Your task to perform on an android device: turn on notifications settings in the gmail app Image 0: 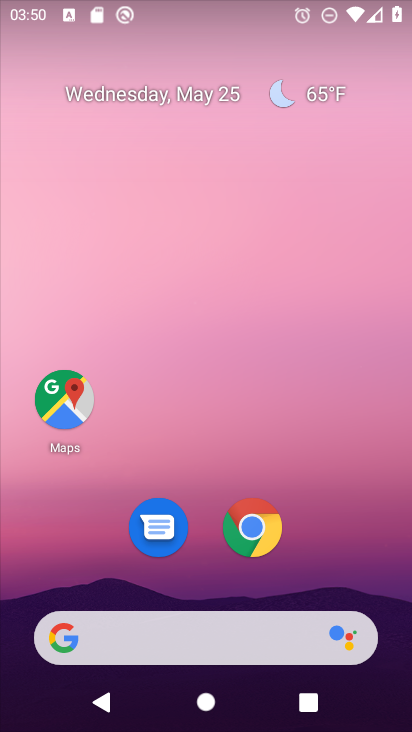
Step 0: drag from (215, 627) to (210, 0)
Your task to perform on an android device: turn on notifications settings in the gmail app Image 1: 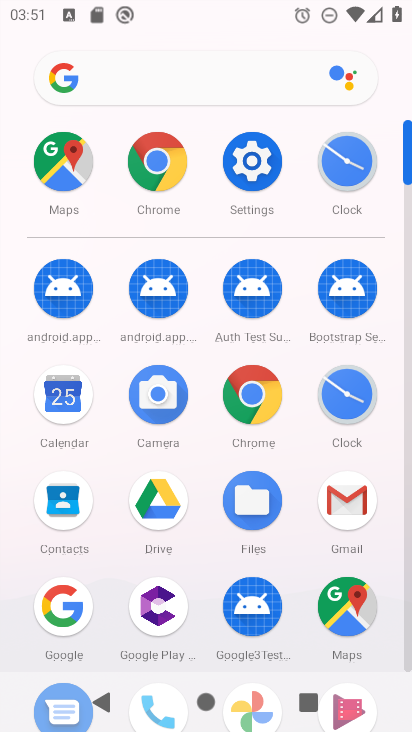
Step 1: click (331, 478)
Your task to perform on an android device: turn on notifications settings in the gmail app Image 2: 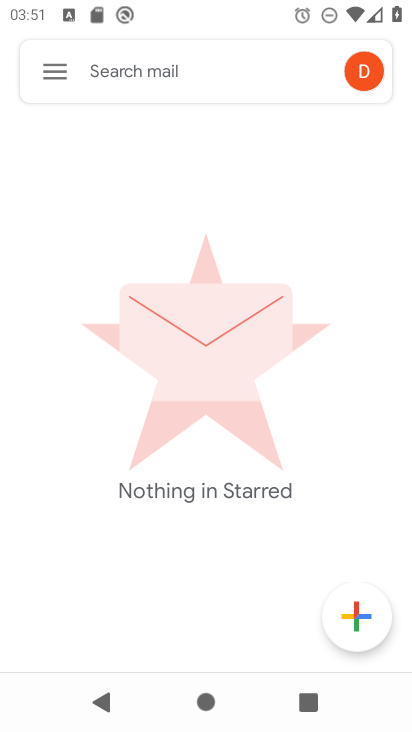
Step 2: click (55, 74)
Your task to perform on an android device: turn on notifications settings in the gmail app Image 3: 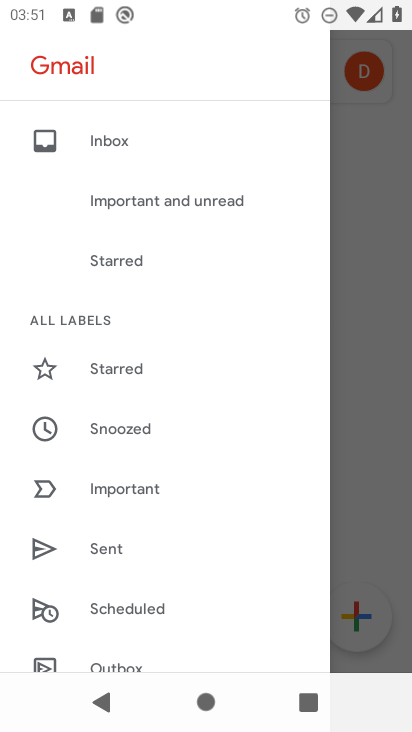
Step 3: drag from (151, 571) to (118, 70)
Your task to perform on an android device: turn on notifications settings in the gmail app Image 4: 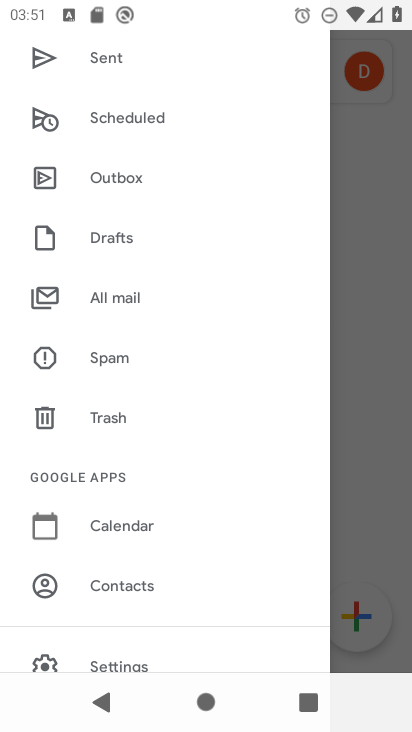
Step 4: drag from (121, 629) to (125, 381)
Your task to perform on an android device: turn on notifications settings in the gmail app Image 5: 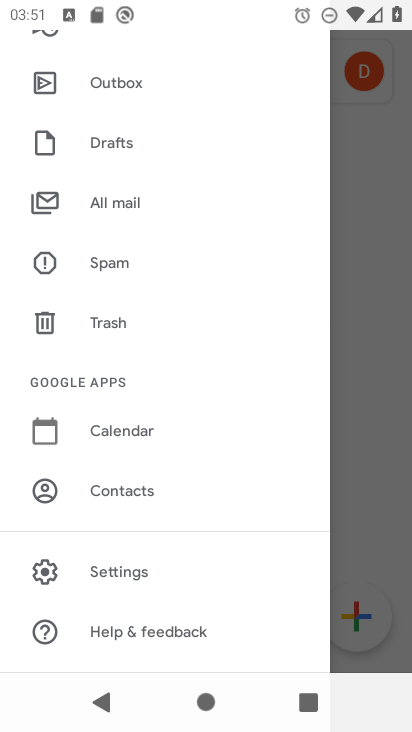
Step 5: click (158, 577)
Your task to perform on an android device: turn on notifications settings in the gmail app Image 6: 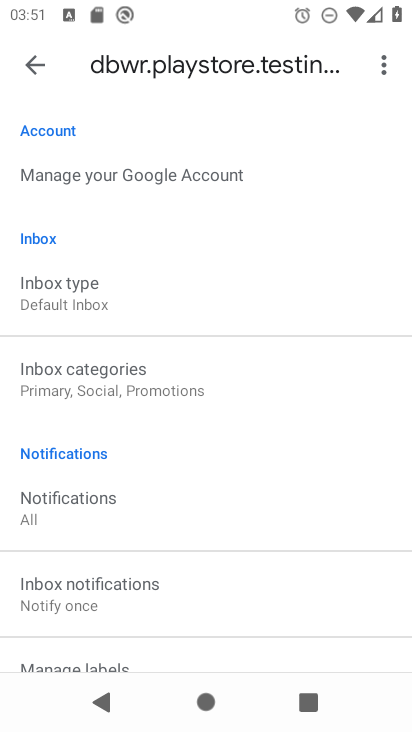
Step 6: drag from (147, 618) to (171, 283)
Your task to perform on an android device: turn on notifications settings in the gmail app Image 7: 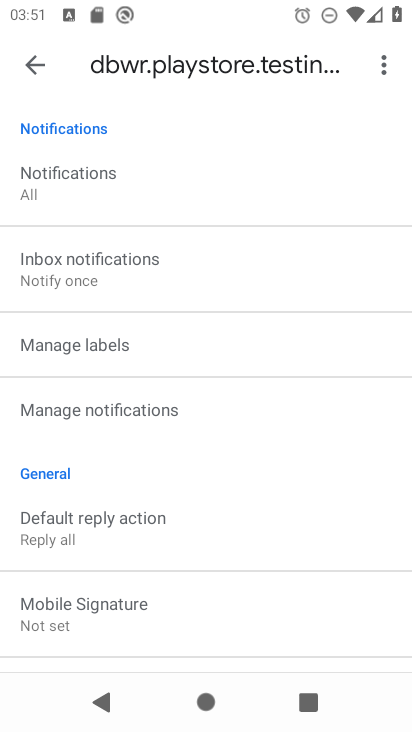
Step 7: click (160, 409)
Your task to perform on an android device: turn on notifications settings in the gmail app Image 8: 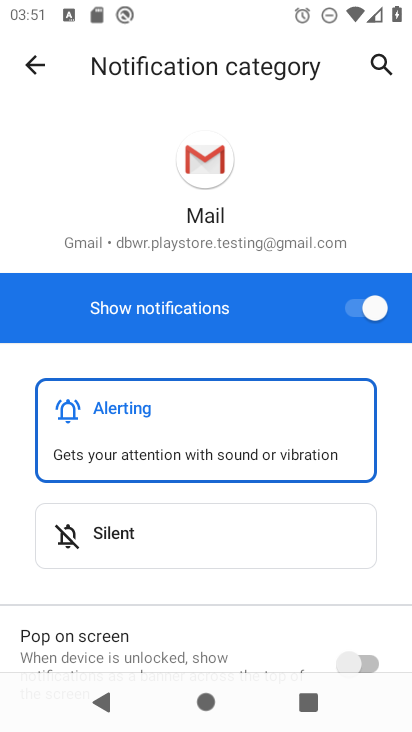
Step 8: task complete